Your task to perform on an android device: allow notifications from all sites in the chrome app Image 0: 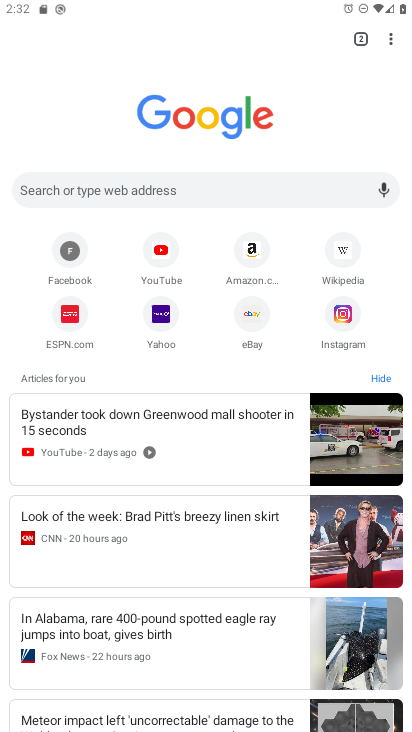
Step 0: click (385, 39)
Your task to perform on an android device: allow notifications from all sites in the chrome app Image 1: 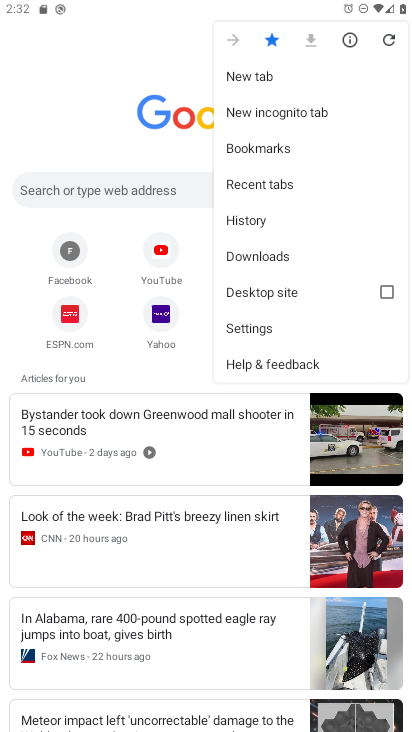
Step 1: click (259, 332)
Your task to perform on an android device: allow notifications from all sites in the chrome app Image 2: 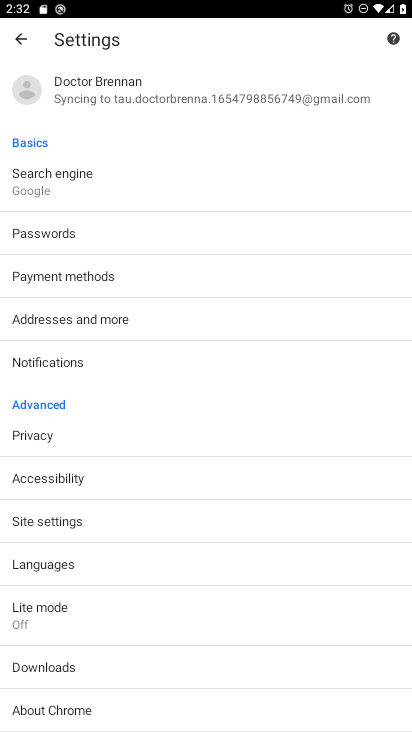
Step 2: drag from (25, 692) to (84, 451)
Your task to perform on an android device: allow notifications from all sites in the chrome app Image 3: 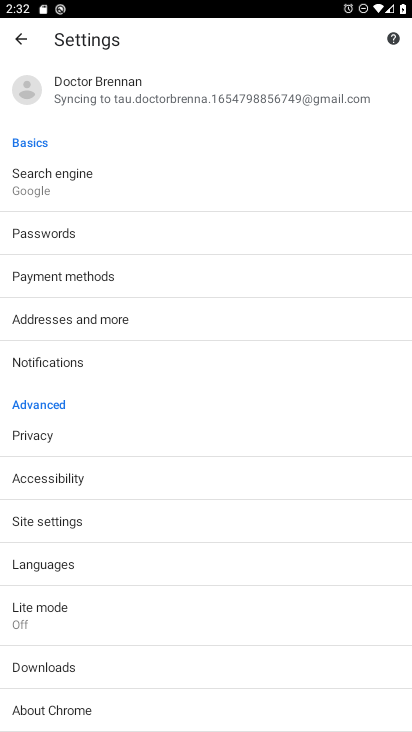
Step 3: click (49, 521)
Your task to perform on an android device: allow notifications from all sites in the chrome app Image 4: 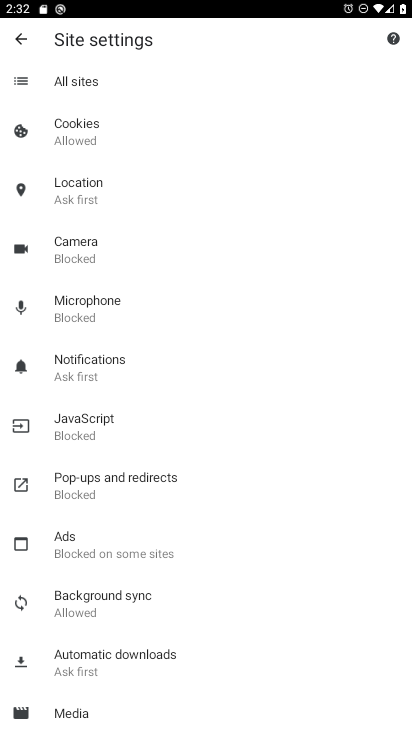
Step 4: click (81, 364)
Your task to perform on an android device: allow notifications from all sites in the chrome app Image 5: 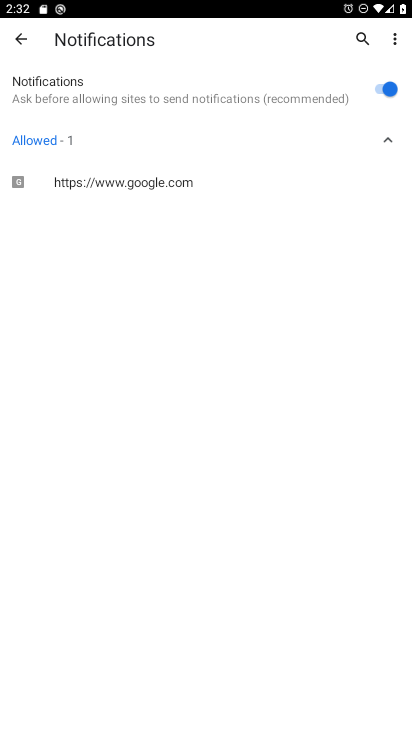
Step 5: task complete